Your task to perform on an android device: change alarm snooze length Image 0: 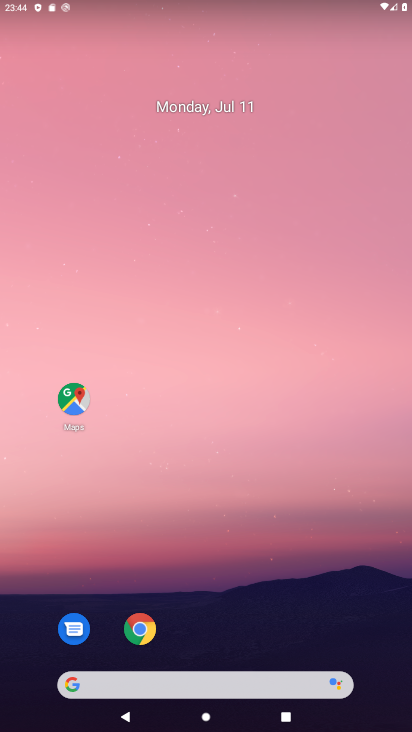
Step 0: drag from (345, 609) to (365, 154)
Your task to perform on an android device: change alarm snooze length Image 1: 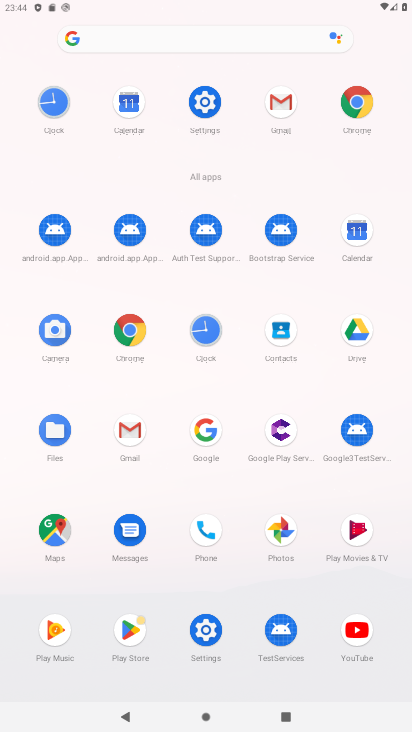
Step 1: click (209, 328)
Your task to perform on an android device: change alarm snooze length Image 2: 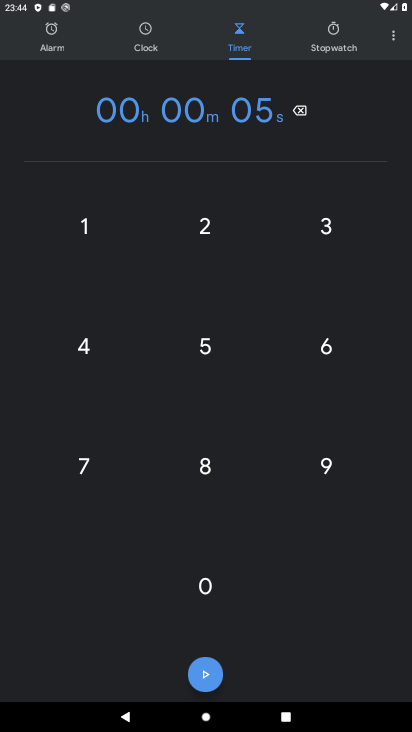
Step 2: click (395, 46)
Your task to perform on an android device: change alarm snooze length Image 3: 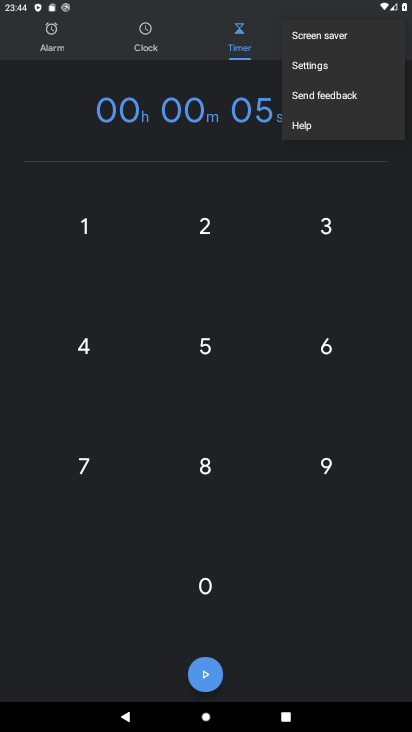
Step 3: click (335, 71)
Your task to perform on an android device: change alarm snooze length Image 4: 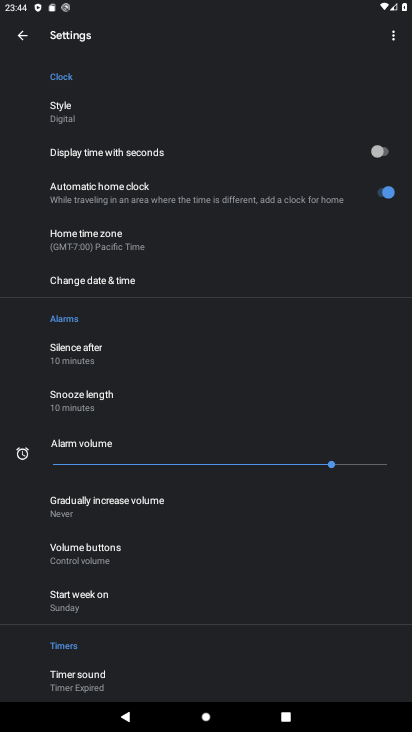
Step 4: drag from (316, 358) to (341, 94)
Your task to perform on an android device: change alarm snooze length Image 5: 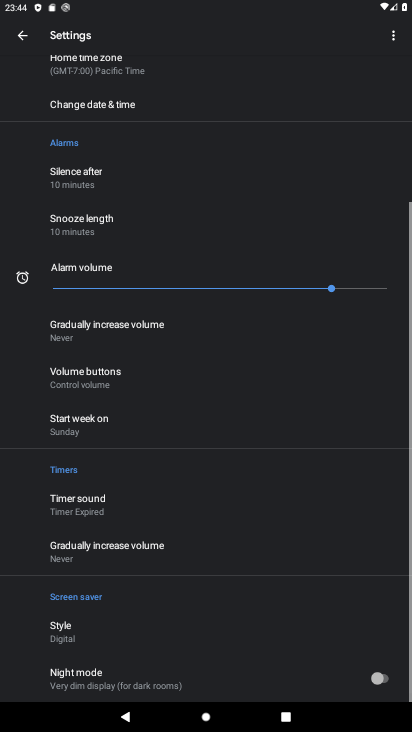
Step 5: drag from (340, 92) to (330, 185)
Your task to perform on an android device: change alarm snooze length Image 6: 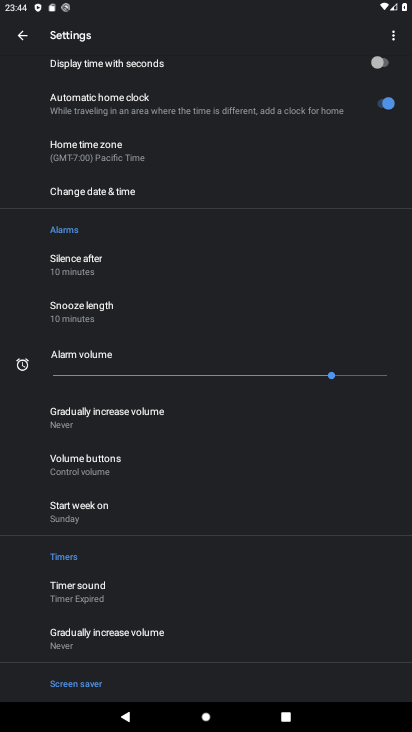
Step 6: click (147, 322)
Your task to perform on an android device: change alarm snooze length Image 7: 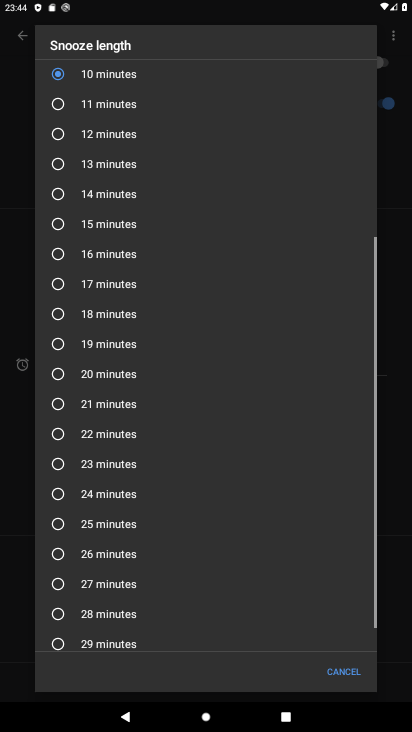
Step 7: click (147, 322)
Your task to perform on an android device: change alarm snooze length Image 8: 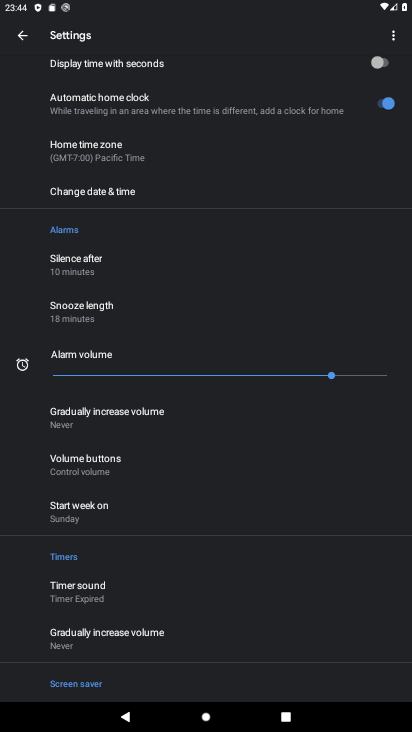
Step 8: task complete